Your task to perform on an android device: turn off data saver in the chrome app Image 0: 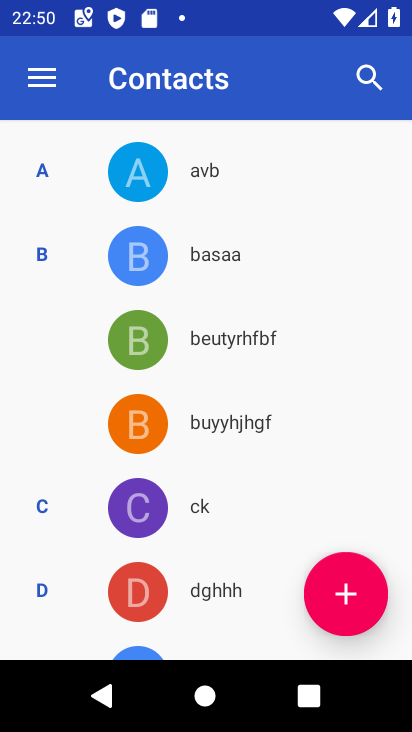
Step 0: press home button
Your task to perform on an android device: turn off data saver in the chrome app Image 1: 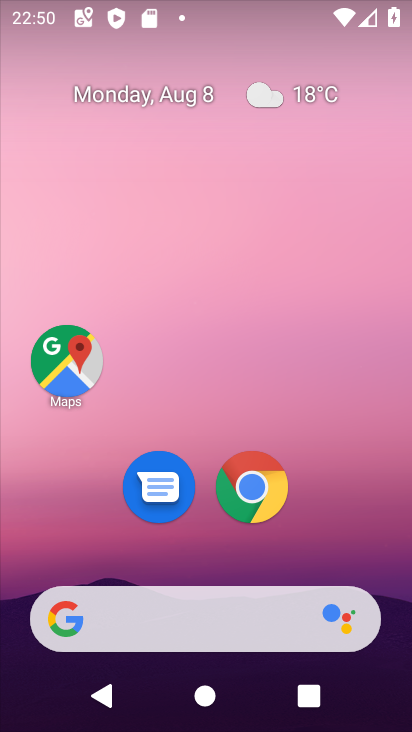
Step 1: click (257, 481)
Your task to perform on an android device: turn off data saver in the chrome app Image 2: 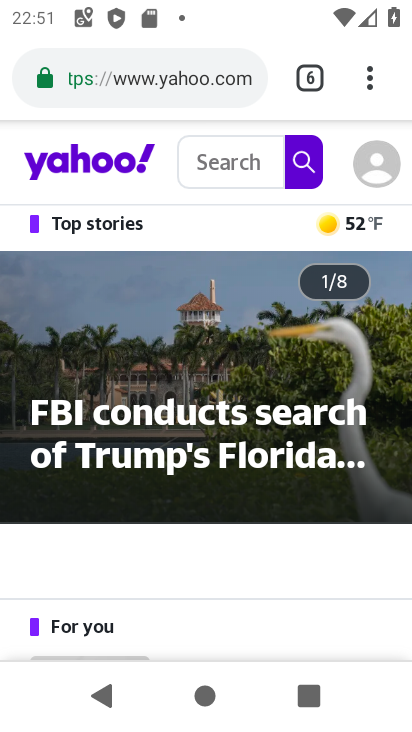
Step 2: click (368, 80)
Your task to perform on an android device: turn off data saver in the chrome app Image 3: 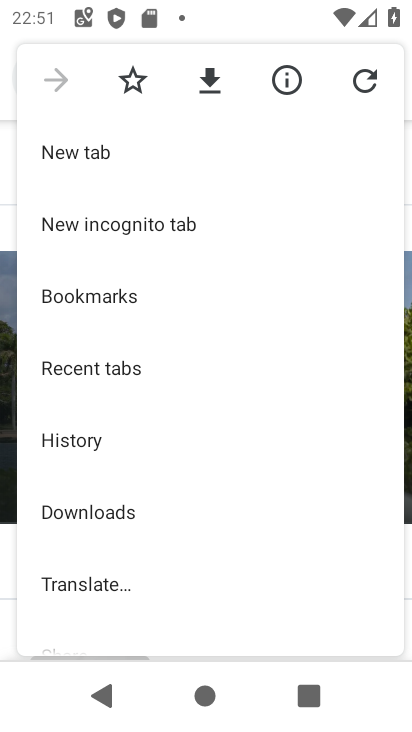
Step 3: drag from (107, 603) to (98, 357)
Your task to perform on an android device: turn off data saver in the chrome app Image 4: 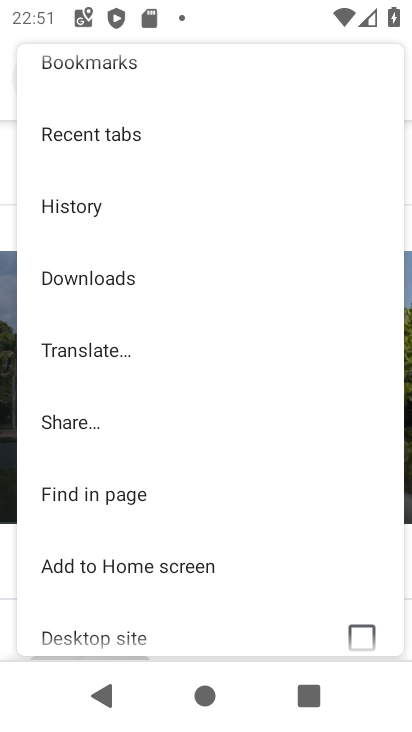
Step 4: drag from (119, 570) to (125, 356)
Your task to perform on an android device: turn off data saver in the chrome app Image 5: 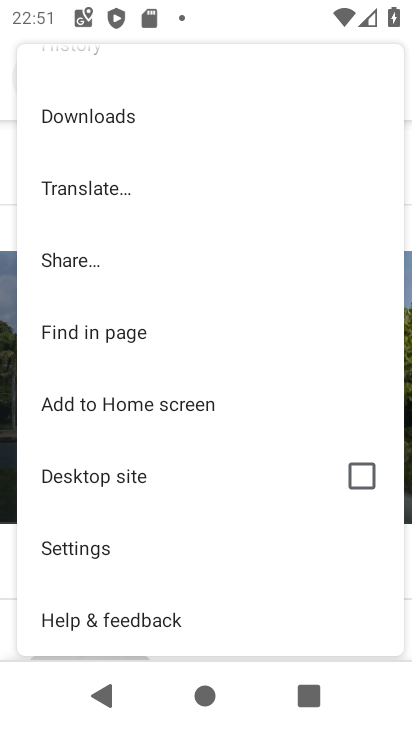
Step 5: click (80, 549)
Your task to perform on an android device: turn off data saver in the chrome app Image 6: 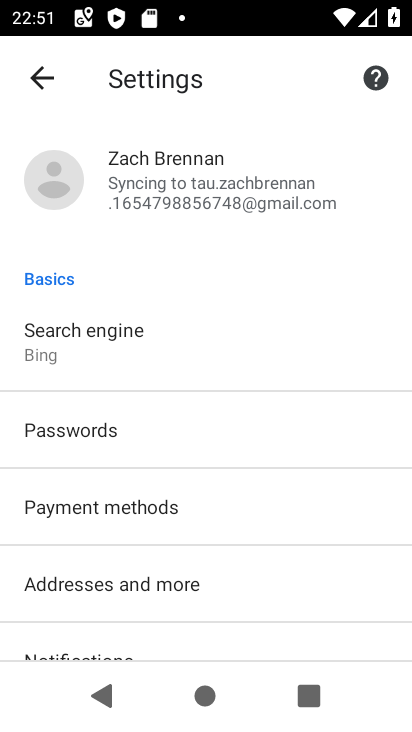
Step 6: drag from (85, 627) to (81, 401)
Your task to perform on an android device: turn off data saver in the chrome app Image 7: 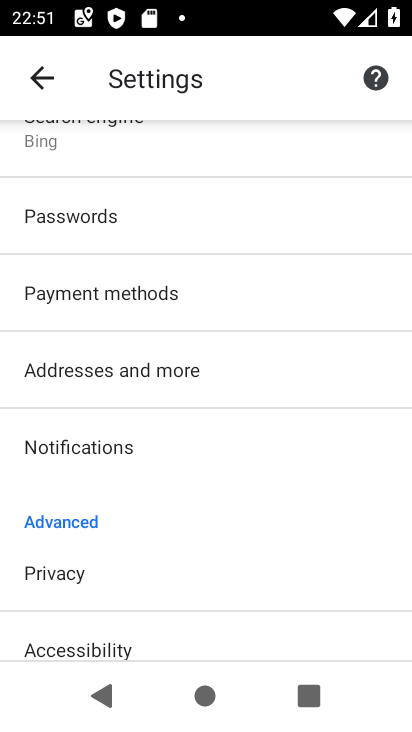
Step 7: drag from (111, 635) to (100, 361)
Your task to perform on an android device: turn off data saver in the chrome app Image 8: 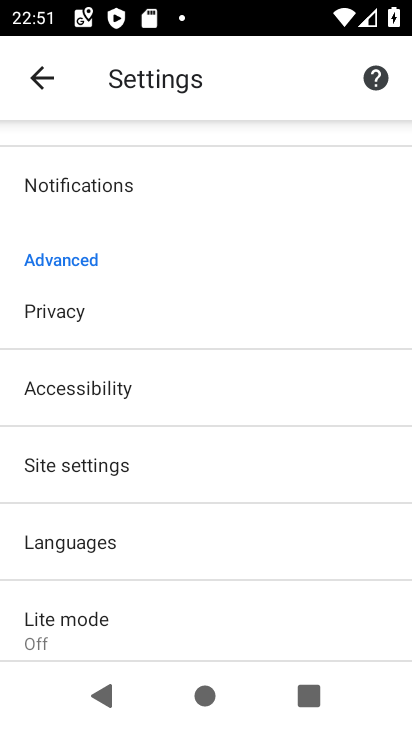
Step 8: drag from (104, 629) to (90, 415)
Your task to perform on an android device: turn off data saver in the chrome app Image 9: 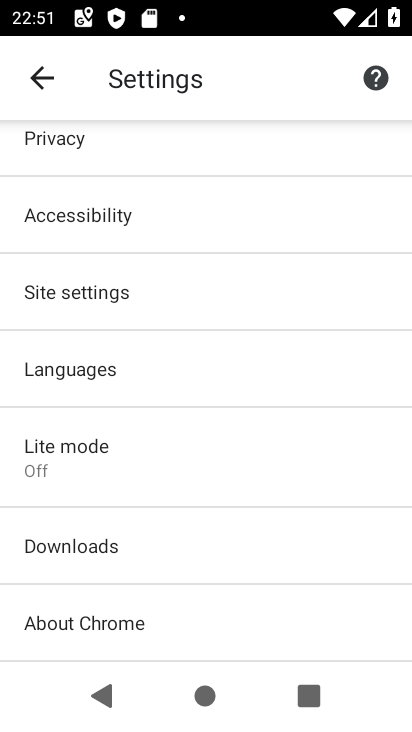
Step 9: click (51, 461)
Your task to perform on an android device: turn off data saver in the chrome app Image 10: 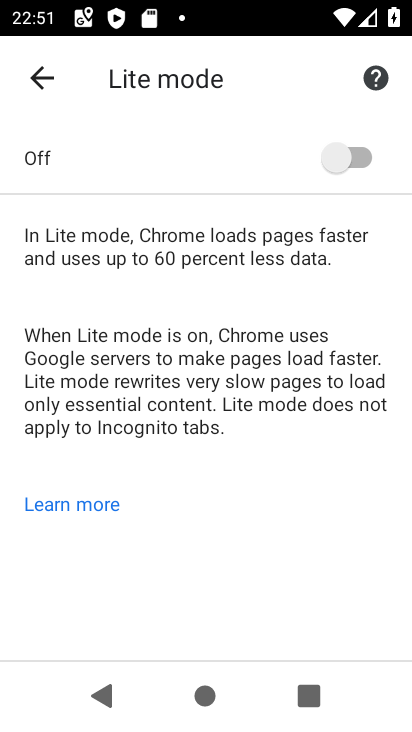
Step 10: task complete